Your task to perform on an android device: Open internet settings Image 0: 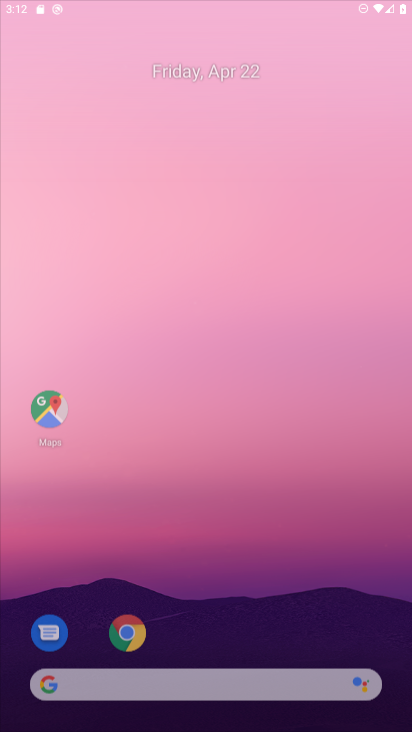
Step 0: drag from (239, 596) to (375, 127)
Your task to perform on an android device: Open internet settings Image 1: 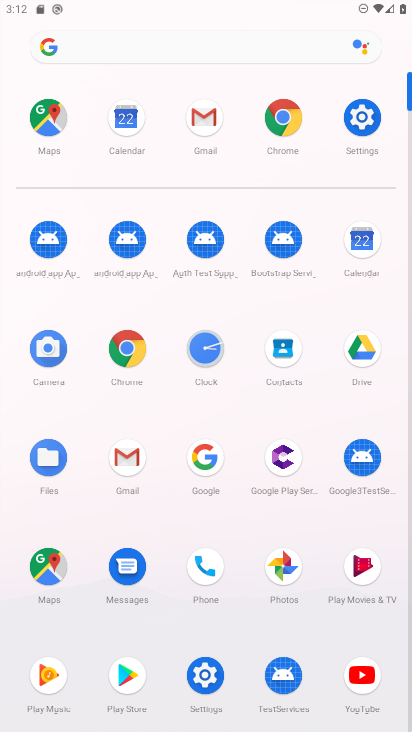
Step 1: click (354, 114)
Your task to perform on an android device: Open internet settings Image 2: 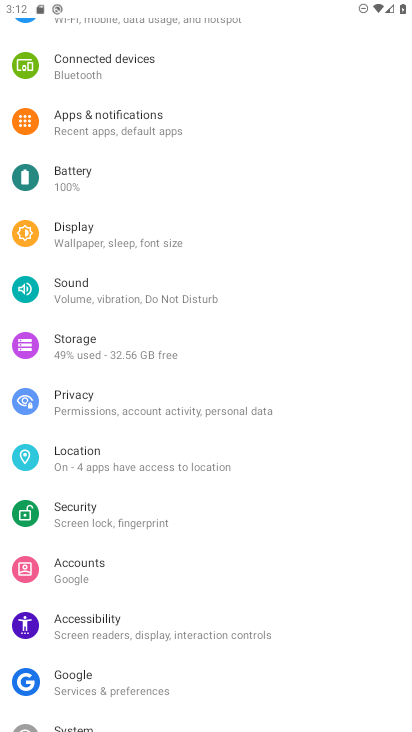
Step 2: drag from (128, 90) to (155, 545)
Your task to perform on an android device: Open internet settings Image 3: 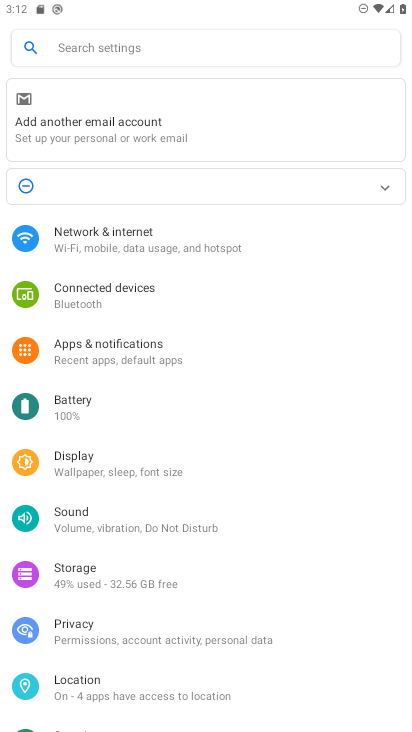
Step 3: click (169, 234)
Your task to perform on an android device: Open internet settings Image 4: 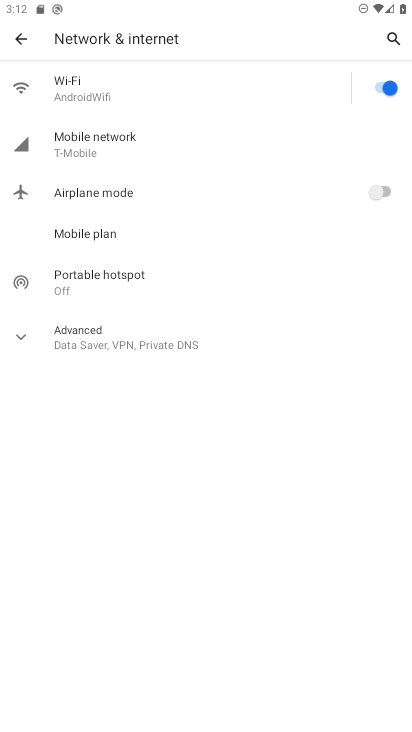
Step 4: task complete